Your task to perform on an android device: stop showing notifications on the lock screen Image 0: 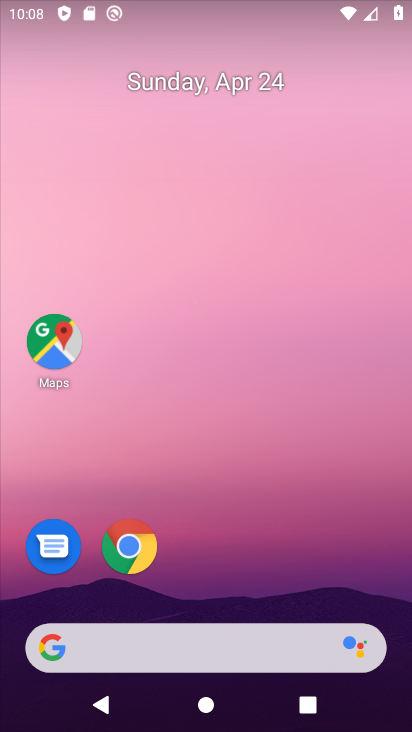
Step 0: drag from (309, 582) to (310, 44)
Your task to perform on an android device: stop showing notifications on the lock screen Image 1: 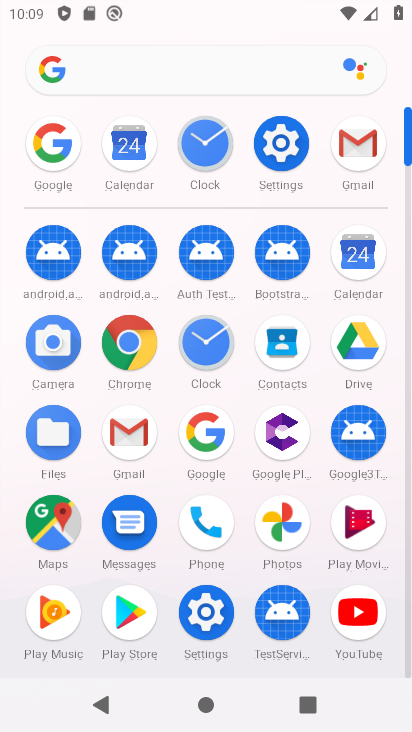
Step 1: click (278, 158)
Your task to perform on an android device: stop showing notifications on the lock screen Image 2: 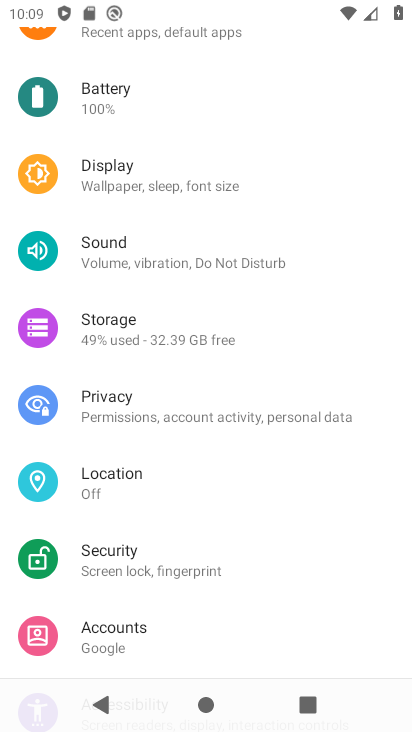
Step 2: drag from (278, 73) to (233, 532)
Your task to perform on an android device: stop showing notifications on the lock screen Image 3: 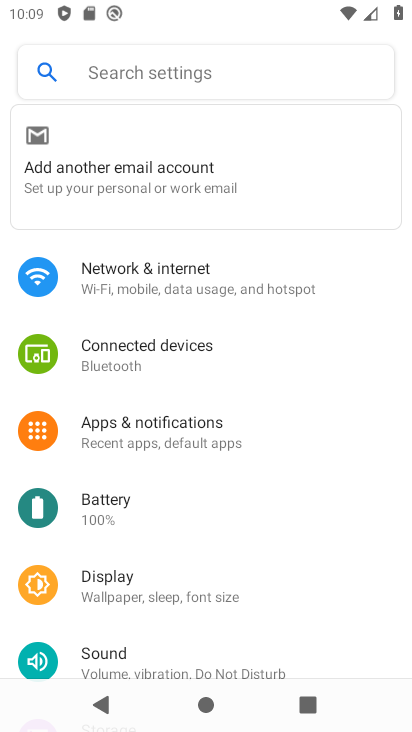
Step 3: click (157, 420)
Your task to perform on an android device: stop showing notifications on the lock screen Image 4: 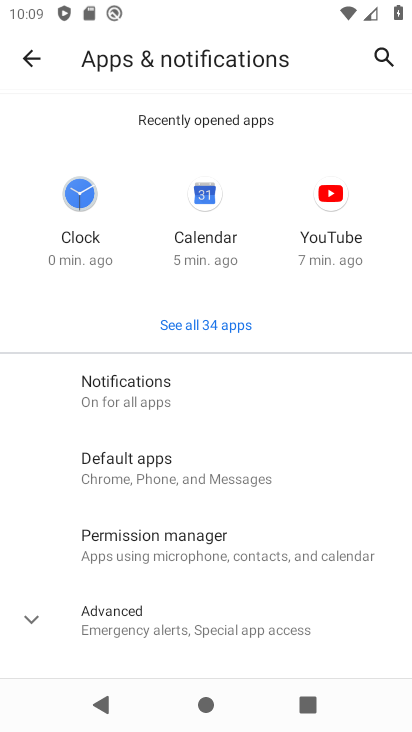
Step 4: click (172, 609)
Your task to perform on an android device: stop showing notifications on the lock screen Image 5: 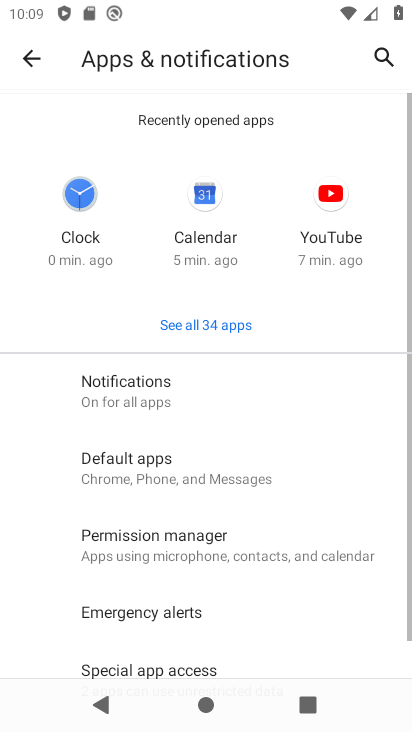
Step 5: drag from (141, 610) to (208, 149)
Your task to perform on an android device: stop showing notifications on the lock screen Image 6: 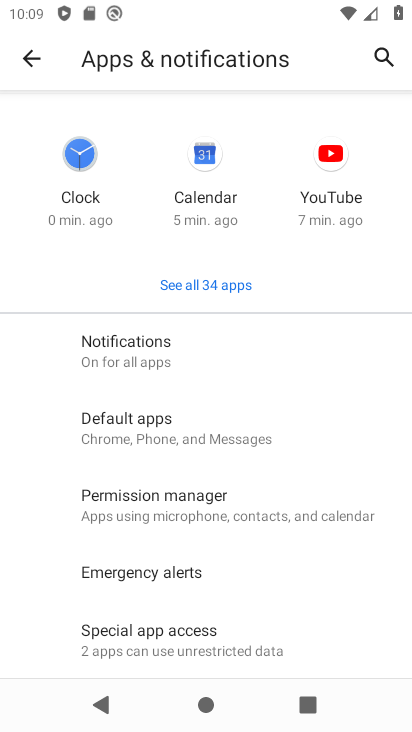
Step 6: click (212, 342)
Your task to perform on an android device: stop showing notifications on the lock screen Image 7: 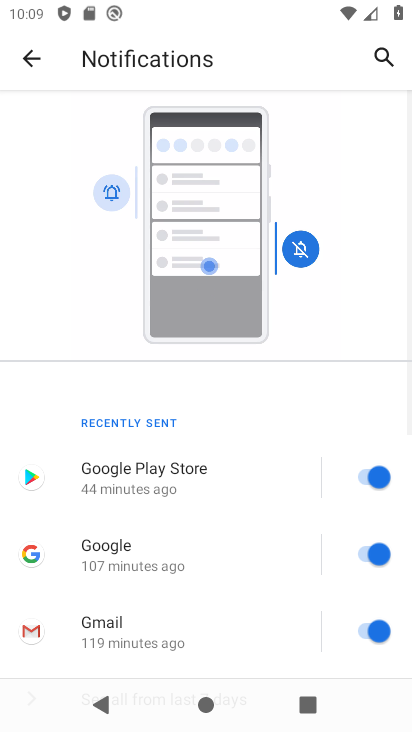
Step 7: drag from (177, 591) to (224, 46)
Your task to perform on an android device: stop showing notifications on the lock screen Image 8: 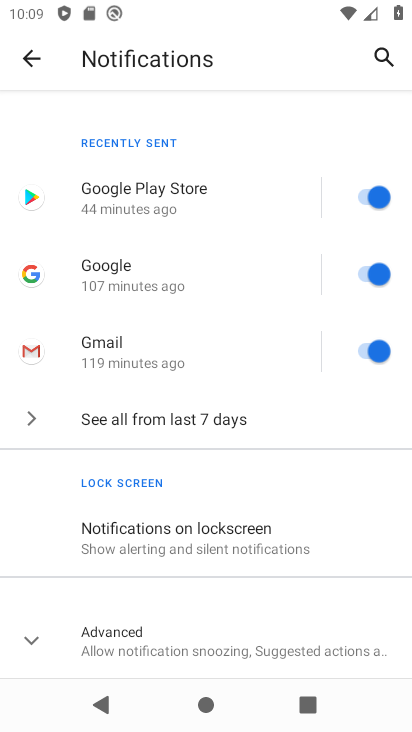
Step 8: click (164, 542)
Your task to perform on an android device: stop showing notifications on the lock screen Image 9: 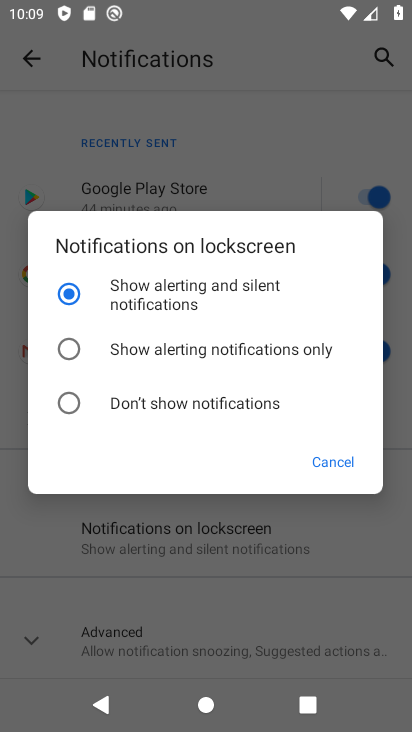
Step 9: click (122, 407)
Your task to perform on an android device: stop showing notifications on the lock screen Image 10: 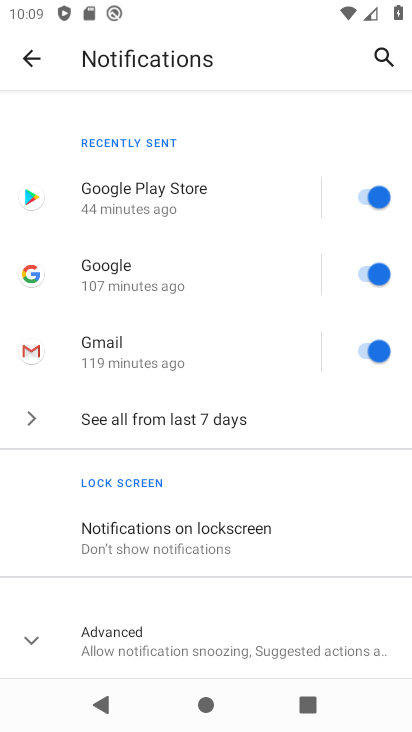
Step 10: task complete